Your task to perform on an android device: Open the stopwatch Image 0: 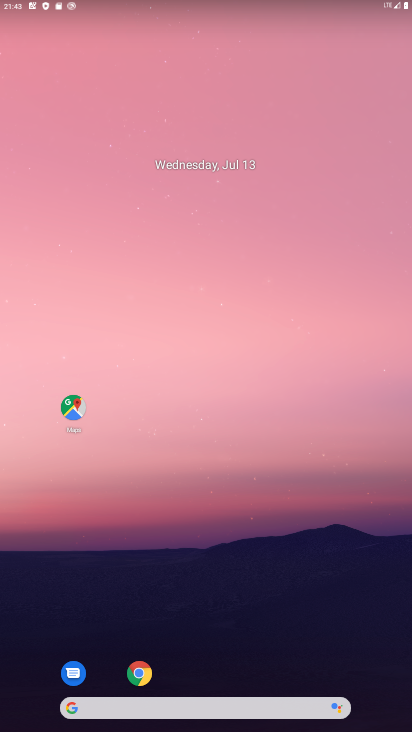
Step 0: drag from (195, 678) to (232, 374)
Your task to perform on an android device: Open the stopwatch Image 1: 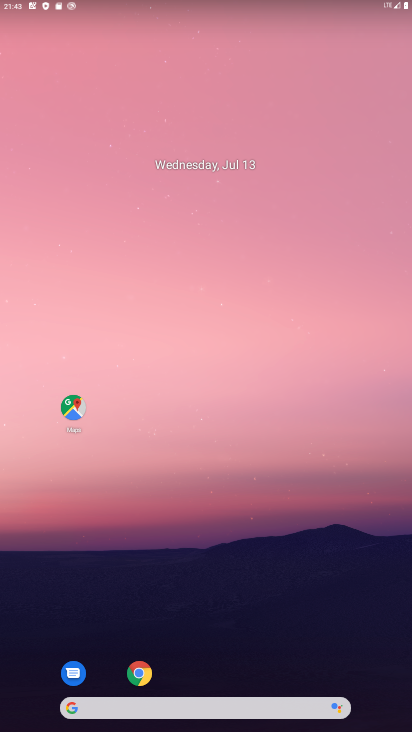
Step 1: drag from (172, 688) to (221, 320)
Your task to perform on an android device: Open the stopwatch Image 2: 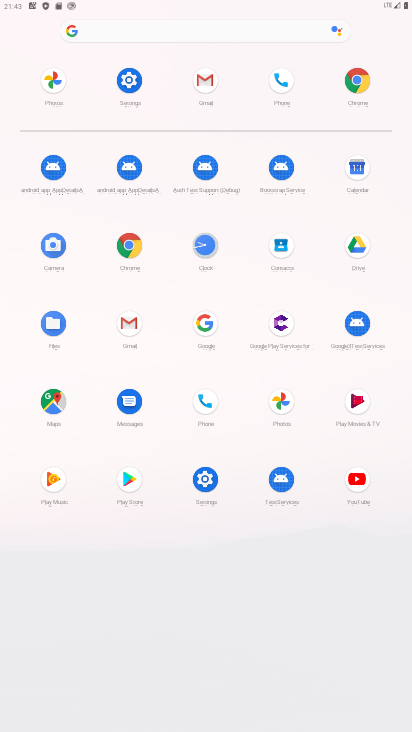
Step 2: drag from (201, 242) to (283, 228)
Your task to perform on an android device: Open the stopwatch Image 3: 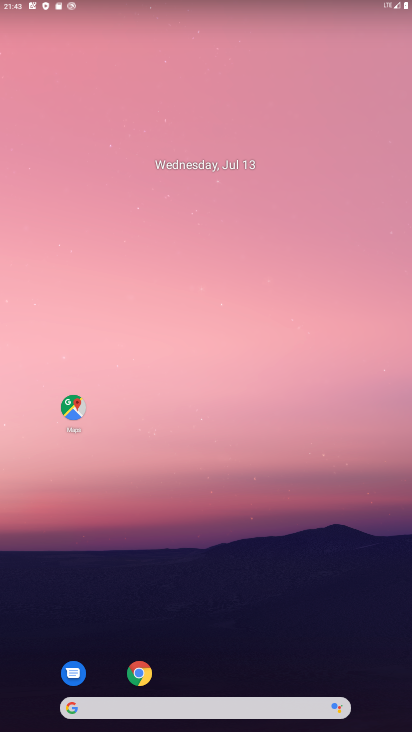
Step 3: drag from (220, 679) to (254, 282)
Your task to perform on an android device: Open the stopwatch Image 4: 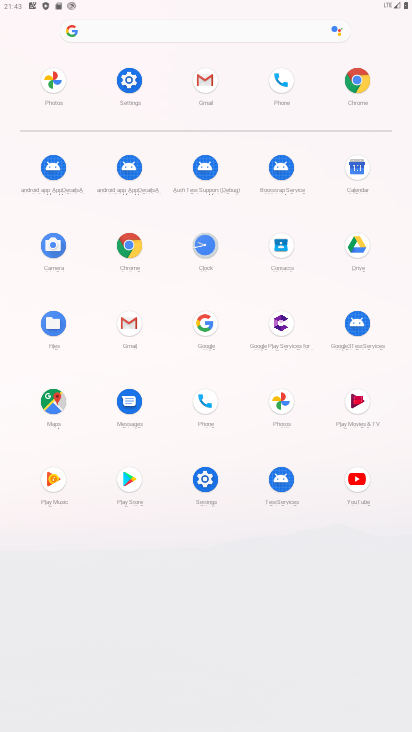
Step 4: drag from (242, 577) to (263, 334)
Your task to perform on an android device: Open the stopwatch Image 5: 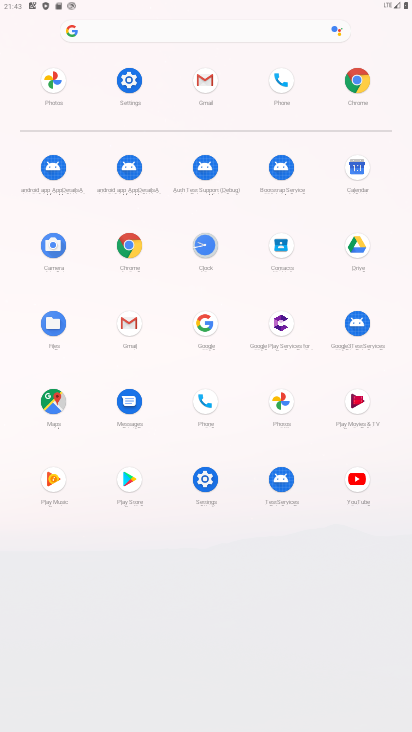
Step 5: drag from (256, 473) to (231, 242)
Your task to perform on an android device: Open the stopwatch Image 6: 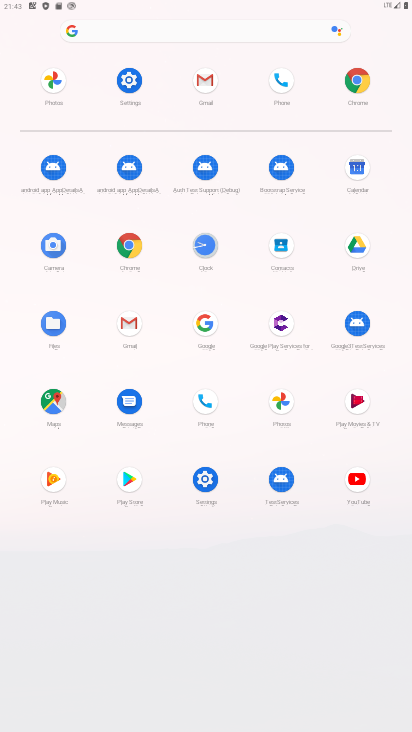
Step 6: drag from (259, 547) to (243, 289)
Your task to perform on an android device: Open the stopwatch Image 7: 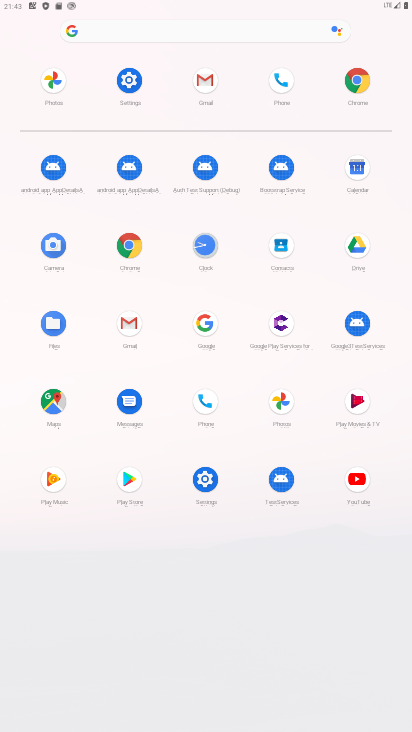
Step 7: drag from (278, 603) to (279, 340)
Your task to perform on an android device: Open the stopwatch Image 8: 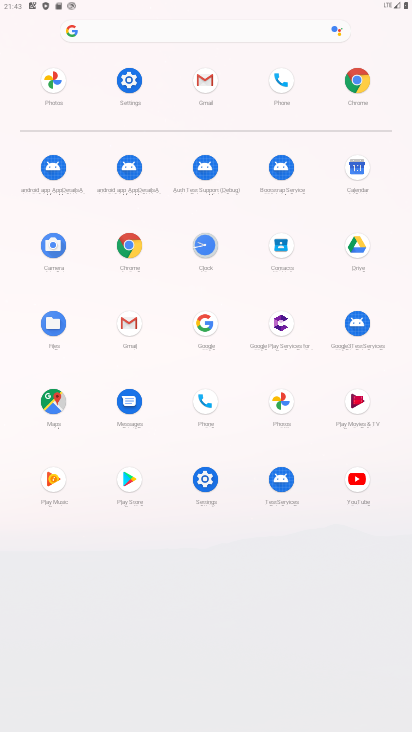
Step 8: drag from (268, 616) to (277, 321)
Your task to perform on an android device: Open the stopwatch Image 9: 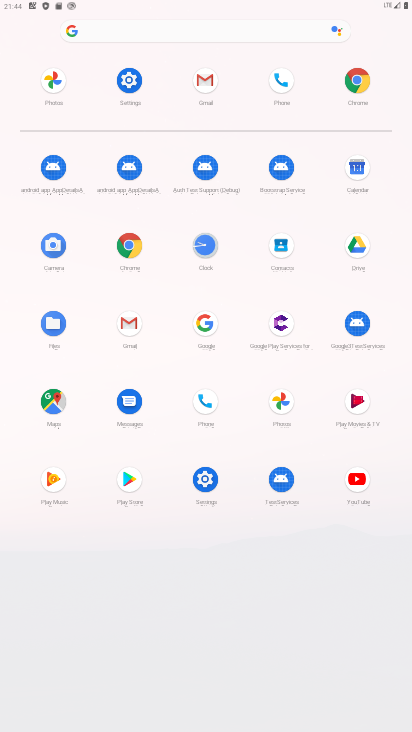
Step 9: click (202, 245)
Your task to perform on an android device: Open the stopwatch Image 10: 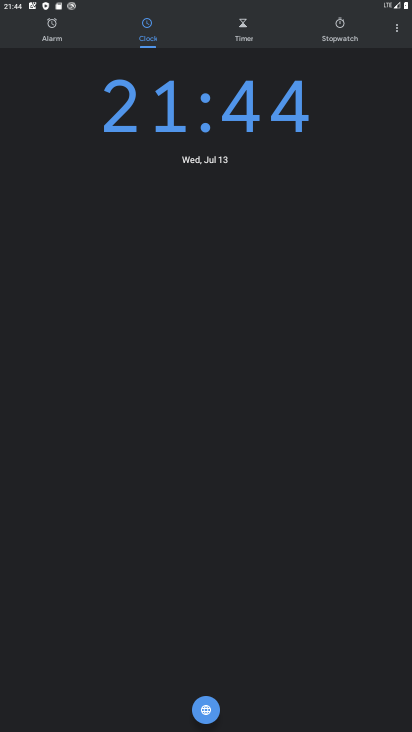
Step 10: click (341, 28)
Your task to perform on an android device: Open the stopwatch Image 11: 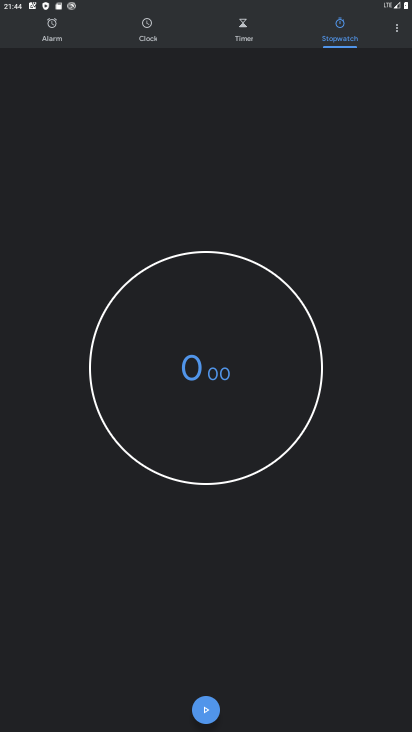
Step 11: drag from (300, 559) to (308, 381)
Your task to perform on an android device: Open the stopwatch Image 12: 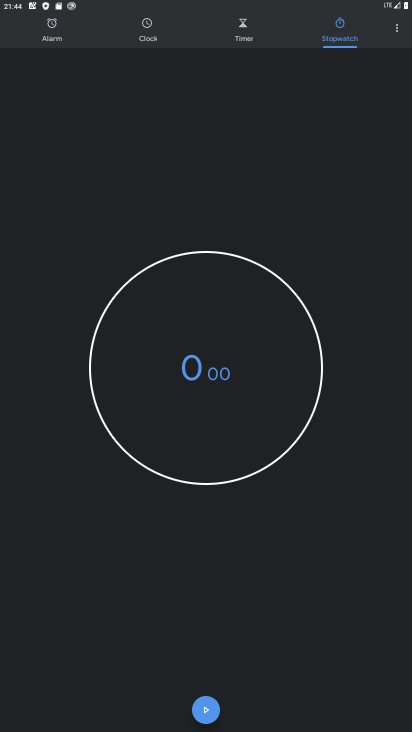
Step 12: click (210, 705)
Your task to perform on an android device: Open the stopwatch Image 13: 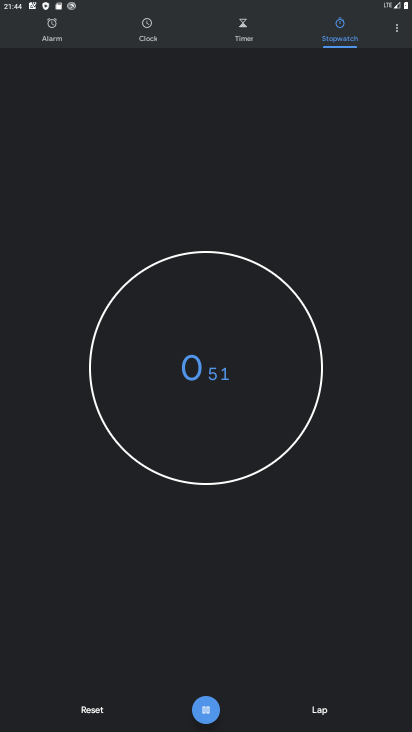
Step 13: task complete